Your task to perform on an android device: see sites visited before in the chrome app Image 0: 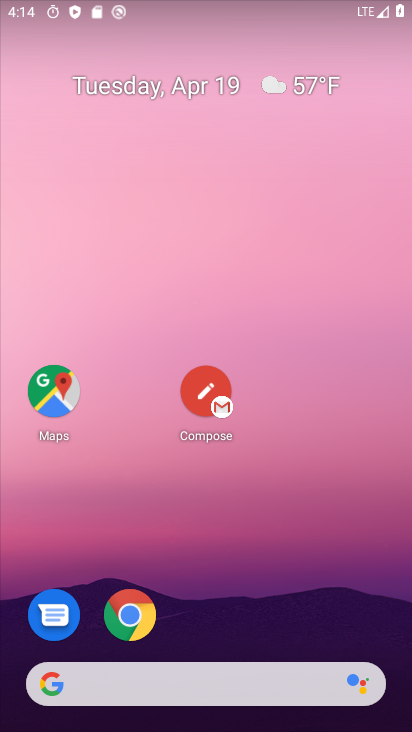
Step 0: drag from (291, 650) to (305, 92)
Your task to perform on an android device: see sites visited before in the chrome app Image 1: 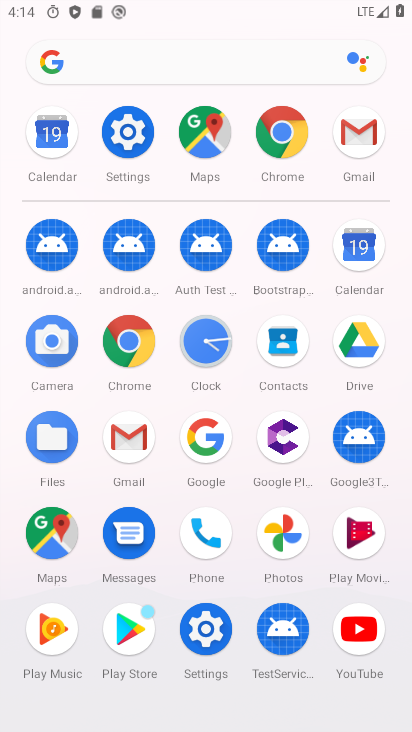
Step 1: click (132, 338)
Your task to perform on an android device: see sites visited before in the chrome app Image 2: 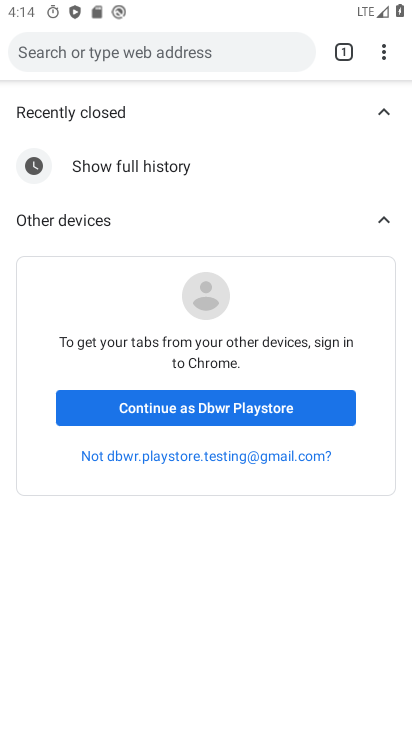
Step 2: click (386, 54)
Your task to perform on an android device: see sites visited before in the chrome app Image 3: 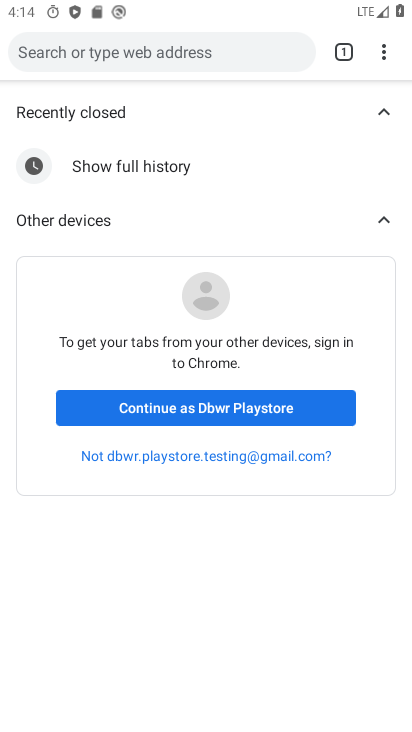
Step 3: click (390, 57)
Your task to perform on an android device: see sites visited before in the chrome app Image 4: 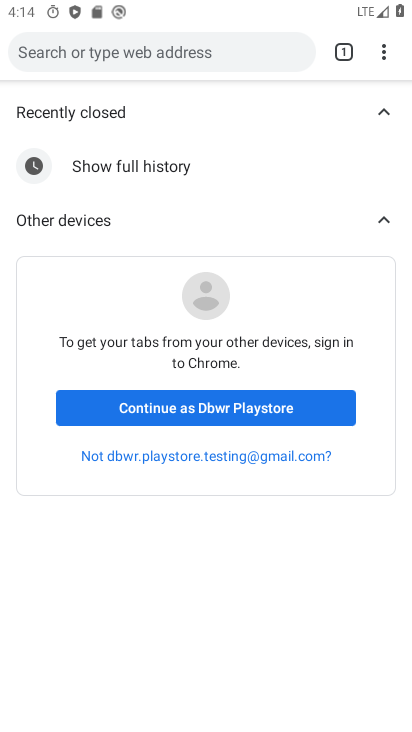
Step 4: click (394, 52)
Your task to perform on an android device: see sites visited before in the chrome app Image 5: 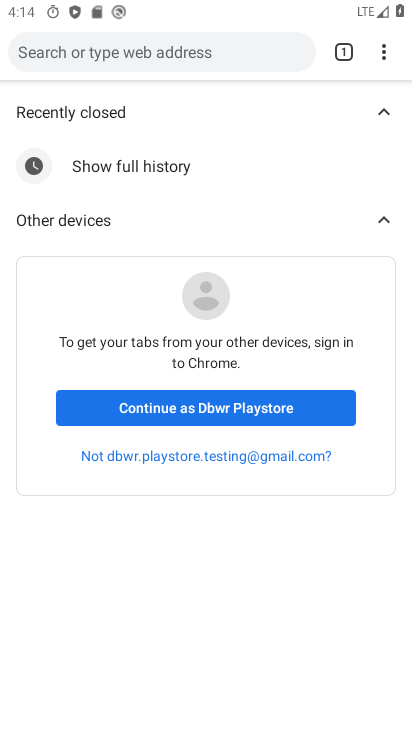
Step 5: click (393, 52)
Your task to perform on an android device: see sites visited before in the chrome app Image 6: 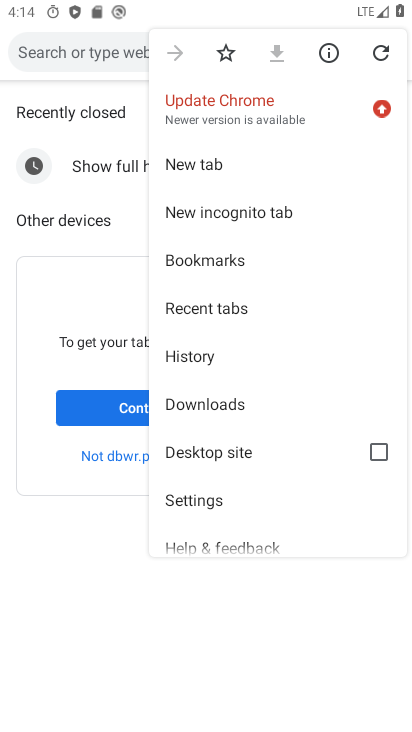
Step 6: click (219, 314)
Your task to perform on an android device: see sites visited before in the chrome app Image 7: 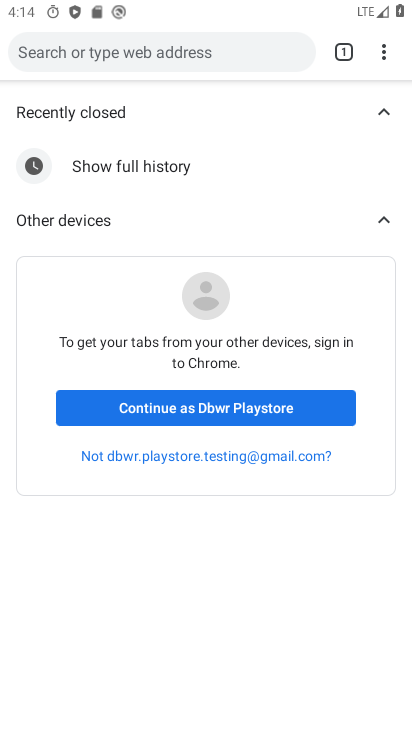
Step 7: task complete